Your task to perform on an android device: turn off location history Image 0: 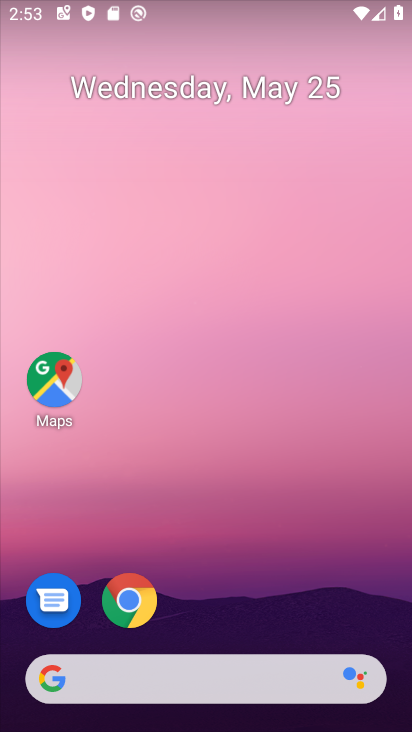
Step 0: press home button
Your task to perform on an android device: turn off location history Image 1: 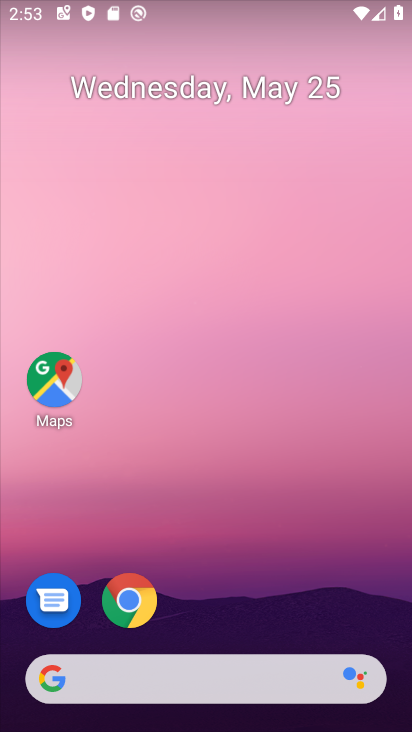
Step 1: drag from (10, 560) to (261, 148)
Your task to perform on an android device: turn off location history Image 2: 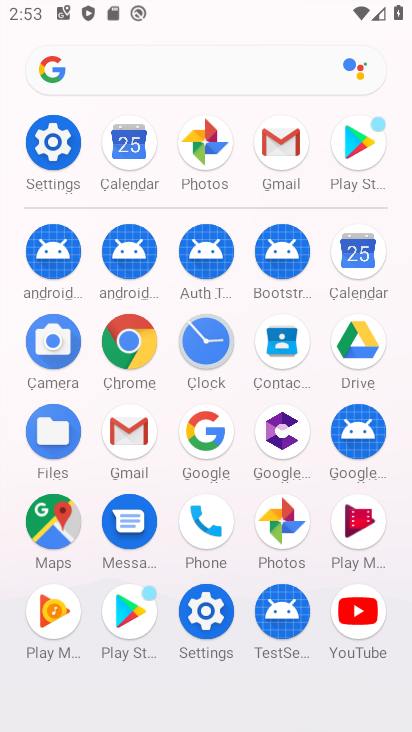
Step 2: click (56, 151)
Your task to perform on an android device: turn off location history Image 3: 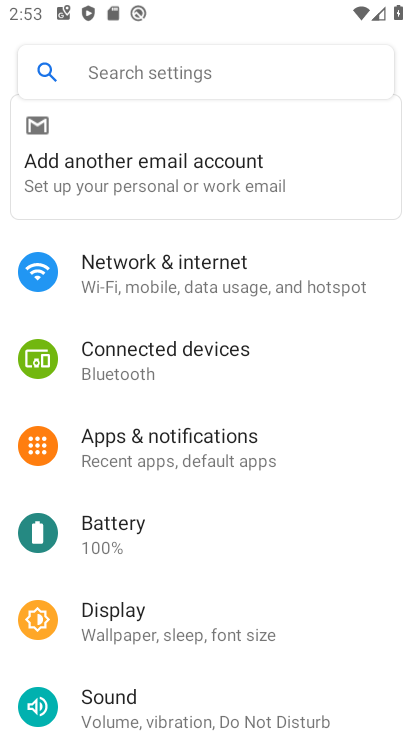
Step 3: drag from (70, 676) to (178, 287)
Your task to perform on an android device: turn off location history Image 4: 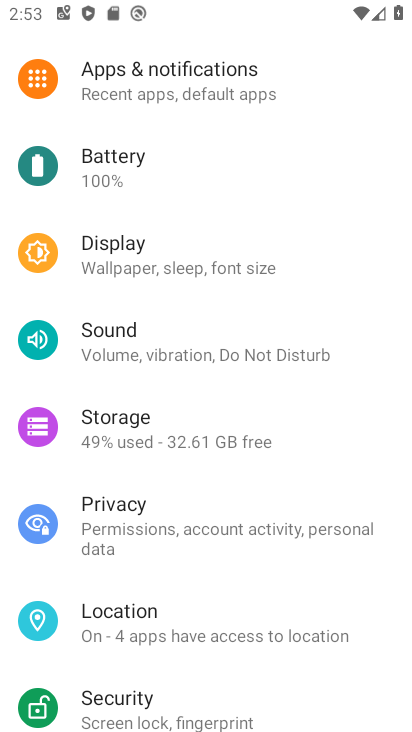
Step 4: click (214, 640)
Your task to perform on an android device: turn off location history Image 5: 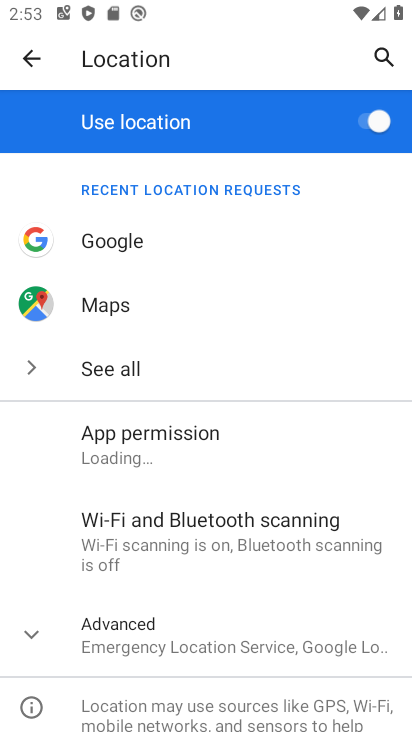
Step 5: click (372, 121)
Your task to perform on an android device: turn off location history Image 6: 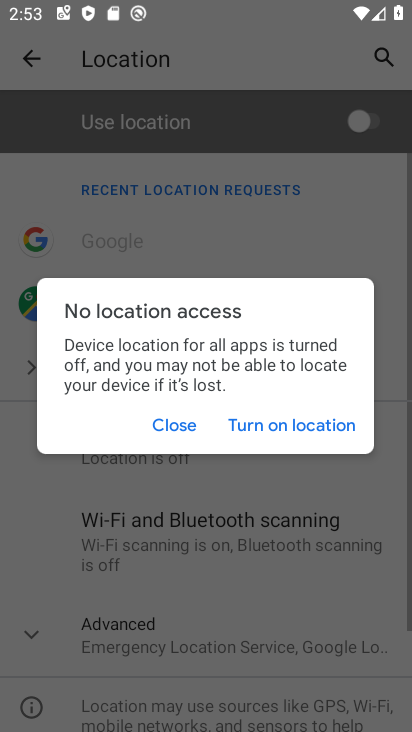
Step 6: task complete